Your task to perform on an android device: change the upload size in google photos Image 0: 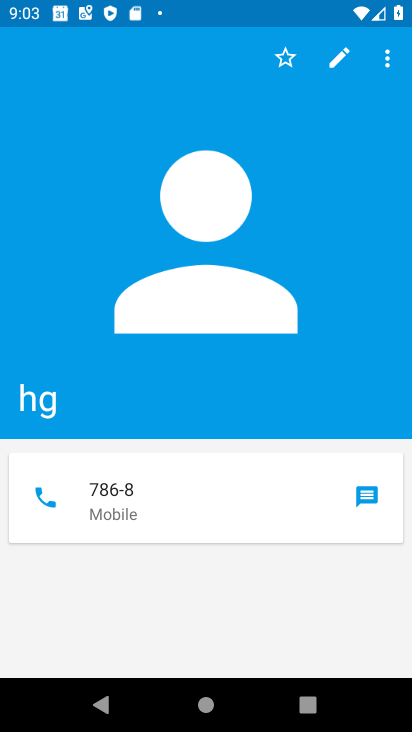
Step 0: press home button
Your task to perform on an android device: change the upload size in google photos Image 1: 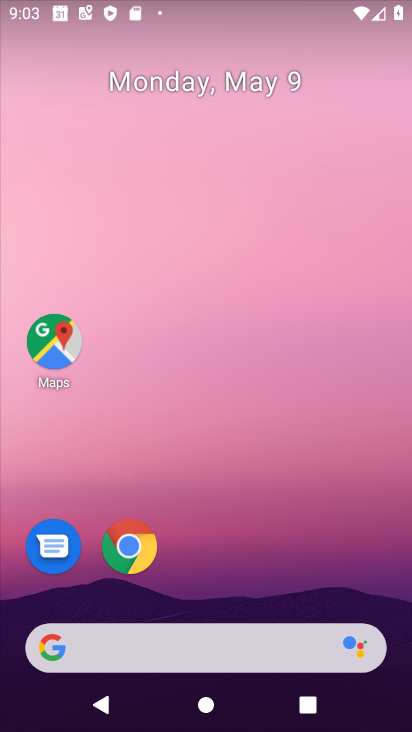
Step 1: drag from (258, 699) to (254, 44)
Your task to perform on an android device: change the upload size in google photos Image 2: 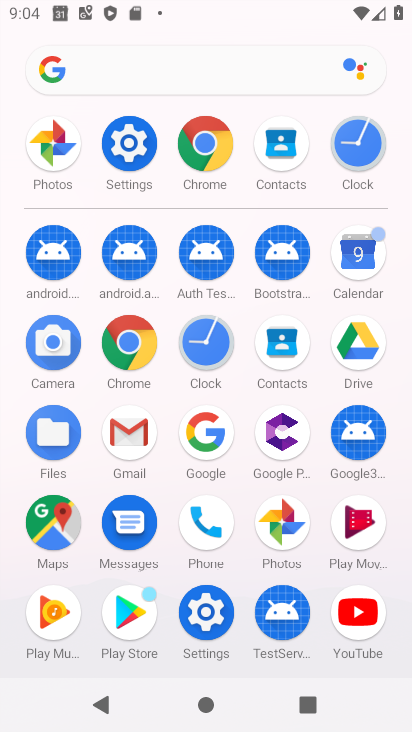
Step 2: click (40, 149)
Your task to perform on an android device: change the upload size in google photos Image 3: 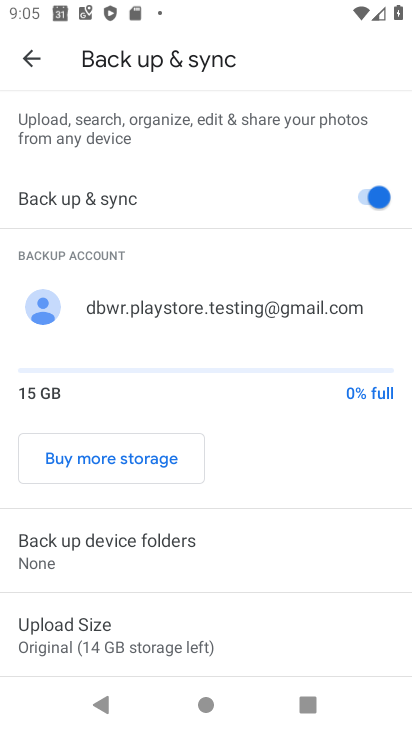
Step 3: click (248, 624)
Your task to perform on an android device: change the upload size in google photos Image 4: 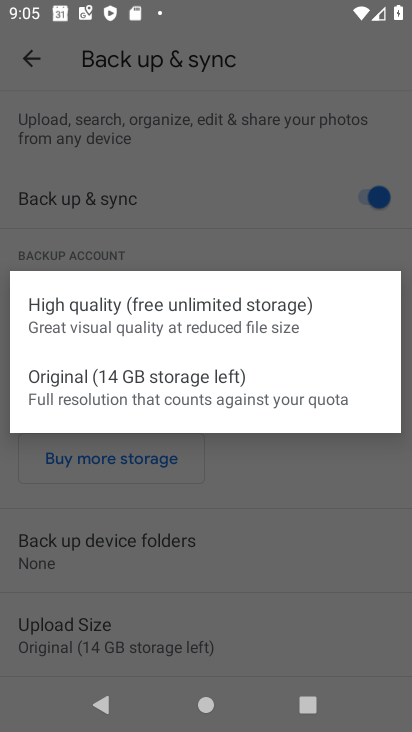
Step 4: click (204, 324)
Your task to perform on an android device: change the upload size in google photos Image 5: 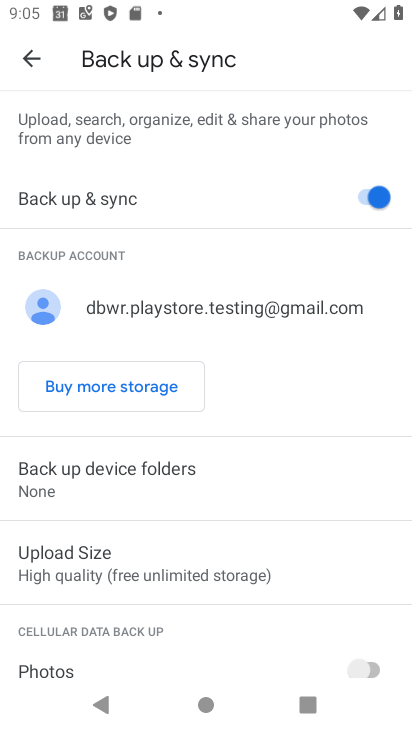
Step 5: task complete